Your task to perform on an android device: Open CNN.com Image 0: 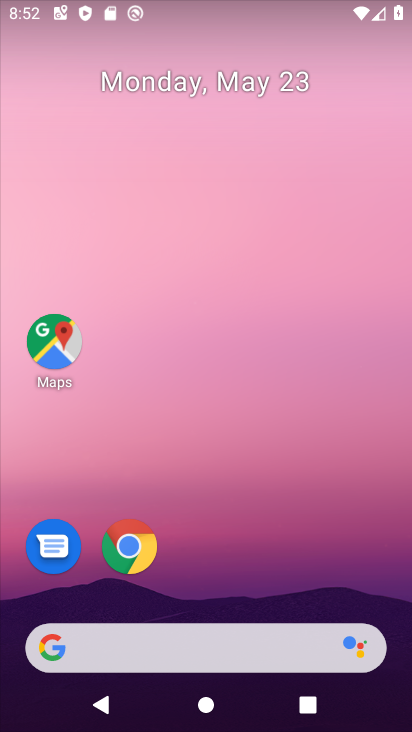
Step 0: click (128, 544)
Your task to perform on an android device: Open CNN.com Image 1: 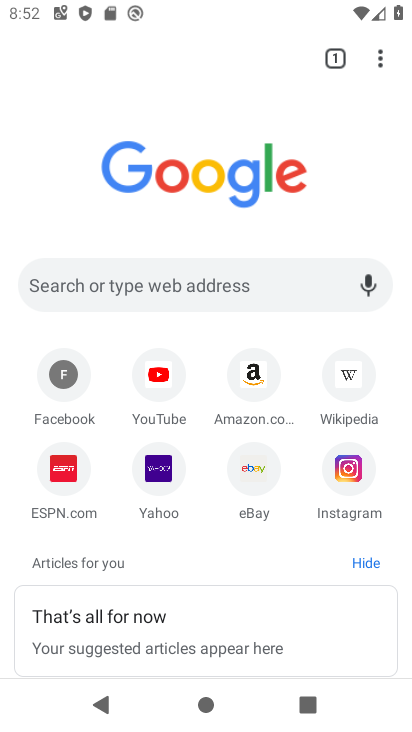
Step 1: click (96, 280)
Your task to perform on an android device: Open CNN.com Image 2: 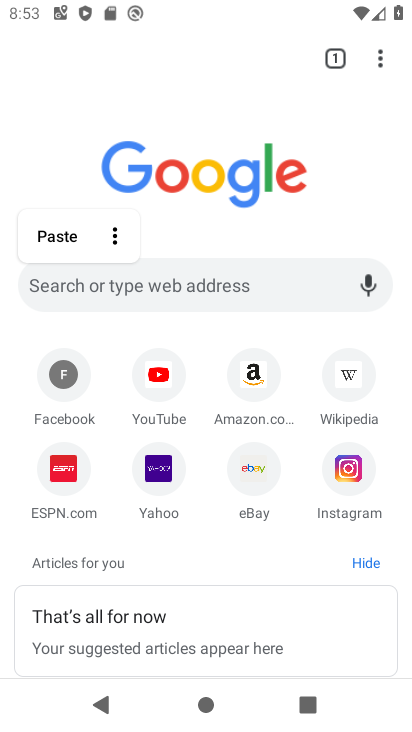
Step 2: type "cnn.com"
Your task to perform on an android device: Open CNN.com Image 3: 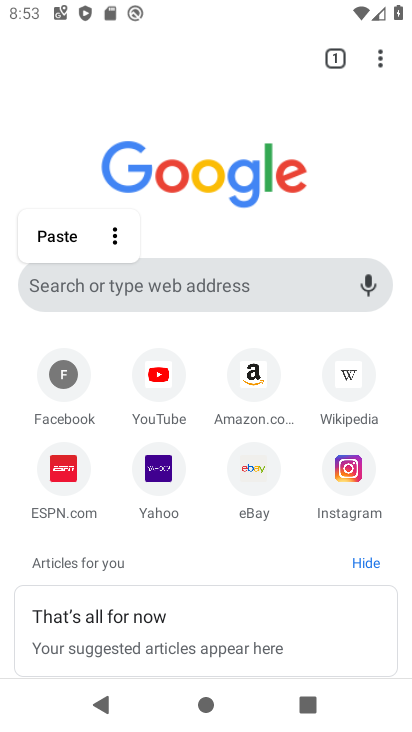
Step 3: click (96, 279)
Your task to perform on an android device: Open CNN.com Image 4: 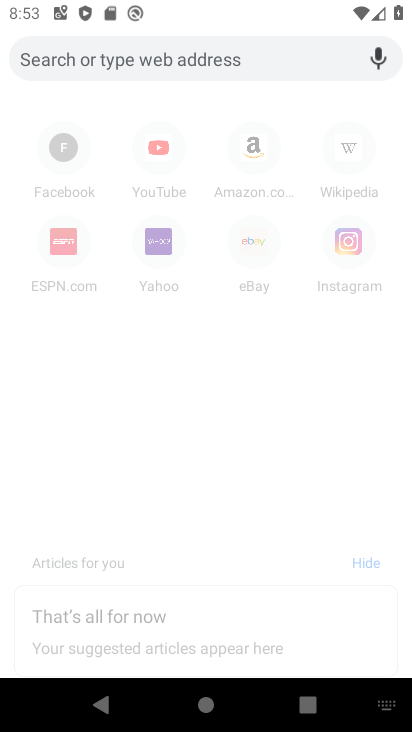
Step 4: type "cnn.com"
Your task to perform on an android device: Open CNN.com Image 5: 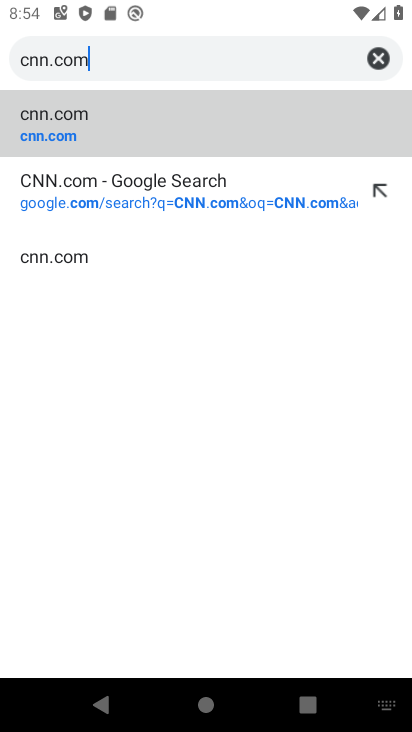
Step 5: click (73, 122)
Your task to perform on an android device: Open CNN.com Image 6: 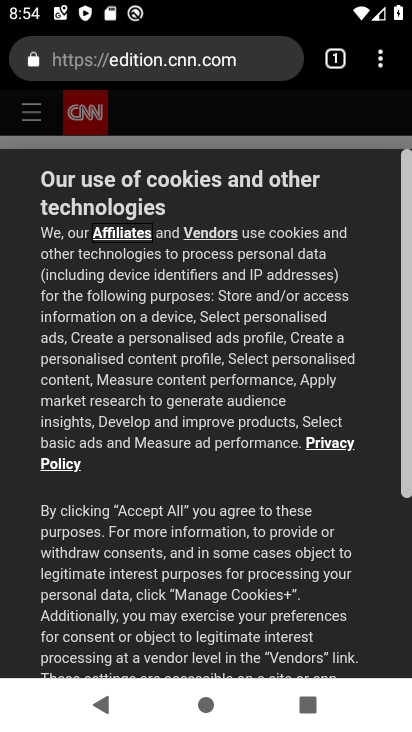
Step 6: drag from (255, 569) to (250, 186)
Your task to perform on an android device: Open CNN.com Image 7: 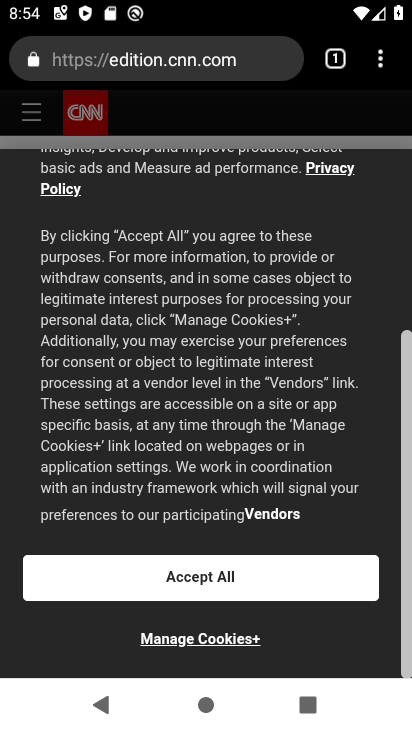
Step 7: click (190, 580)
Your task to perform on an android device: Open CNN.com Image 8: 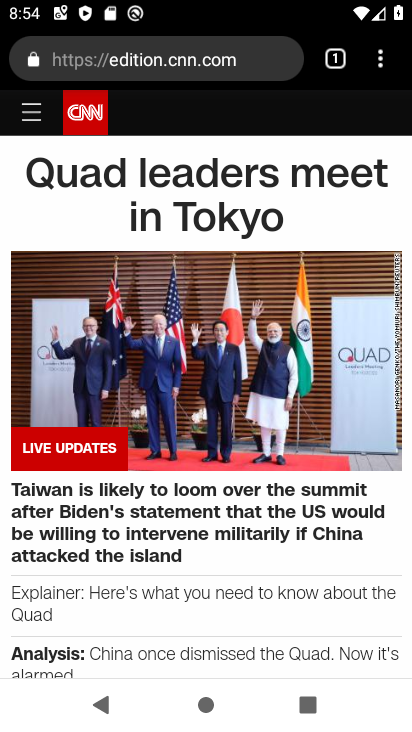
Step 8: task complete